Your task to perform on an android device: set default search engine in the chrome app Image 0: 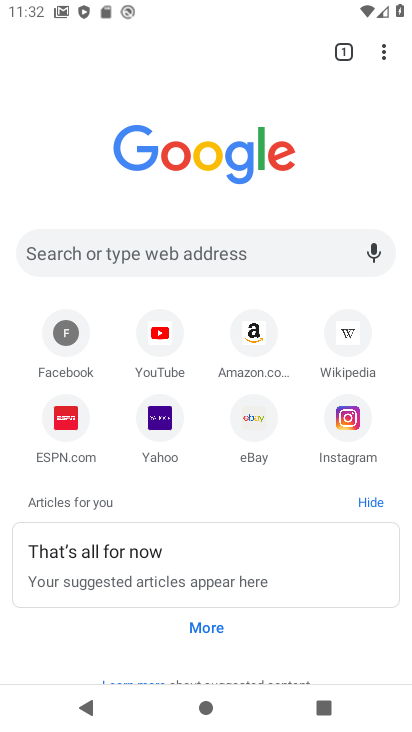
Step 0: click (390, 51)
Your task to perform on an android device: set default search engine in the chrome app Image 1: 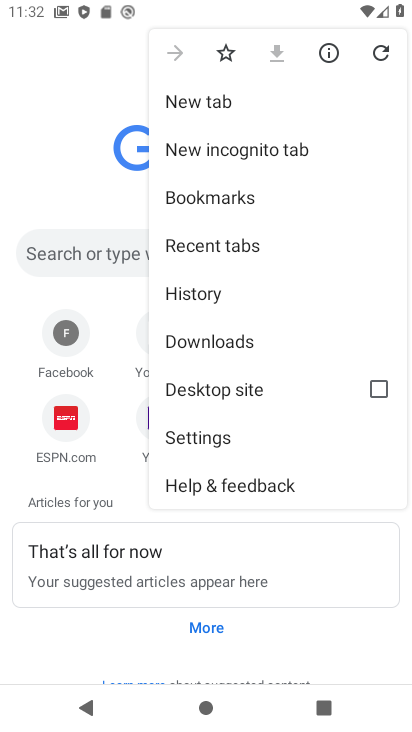
Step 1: click (232, 430)
Your task to perform on an android device: set default search engine in the chrome app Image 2: 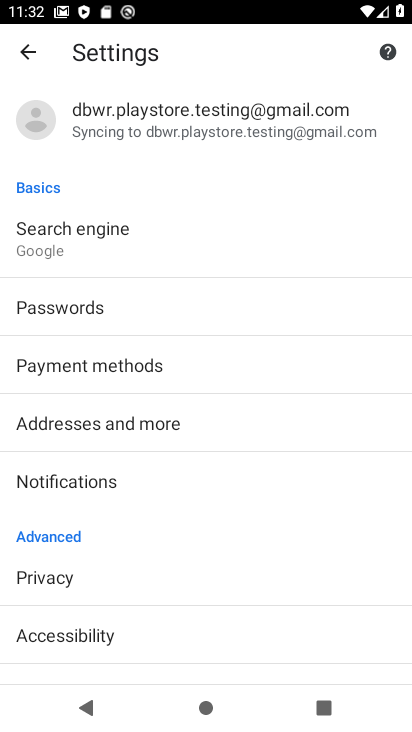
Step 2: drag from (213, 617) to (190, 330)
Your task to perform on an android device: set default search engine in the chrome app Image 3: 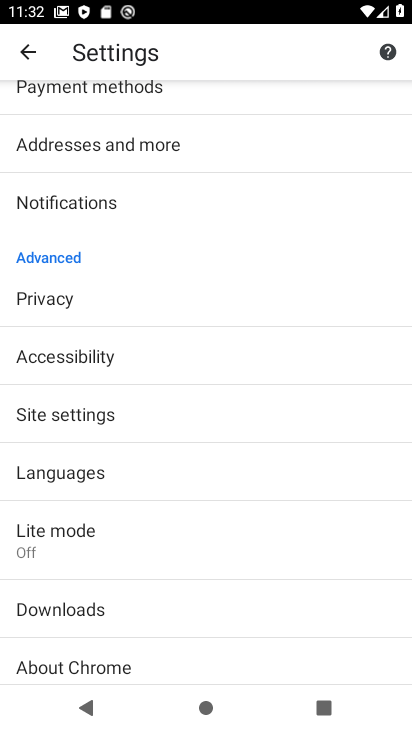
Step 3: drag from (122, 609) to (114, 440)
Your task to perform on an android device: set default search engine in the chrome app Image 4: 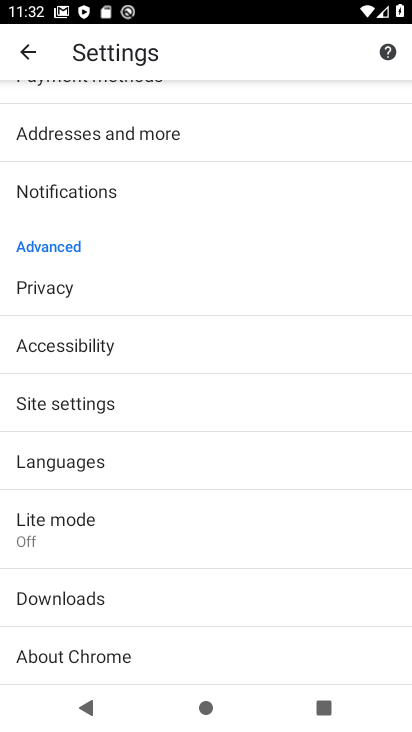
Step 4: drag from (98, 190) to (128, 556)
Your task to perform on an android device: set default search engine in the chrome app Image 5: 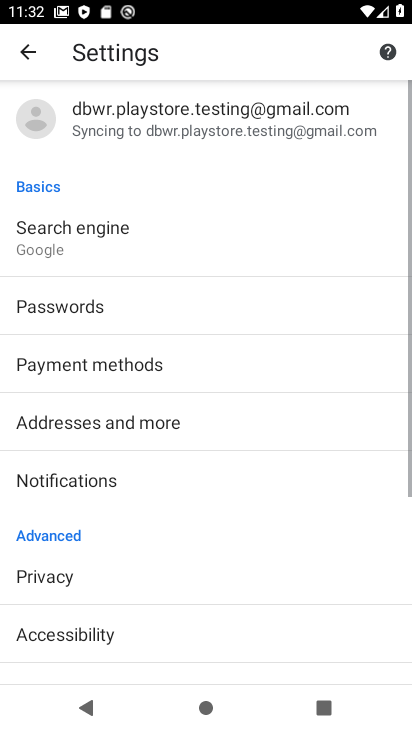
Step 5: drag from (129, 556) to (117, 403)
Your task to perform on an android device: set default search engine in the chrome app Image 6: 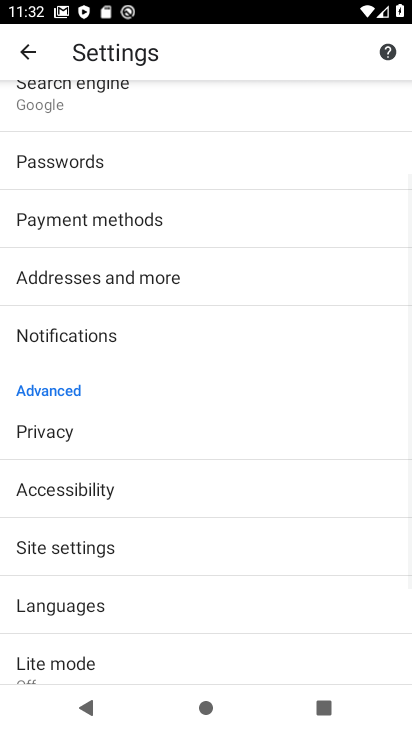
Step 6: click (83, 101)
Your task to perform on an android device: set default search engine in the chrome app Image 7: 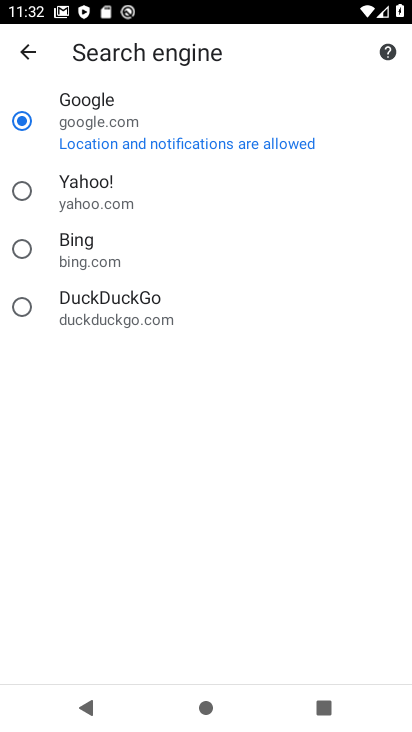
Step 7: click (72, 190)
Your task to perform on an android device: set default search engine in the chrome app Image 8: 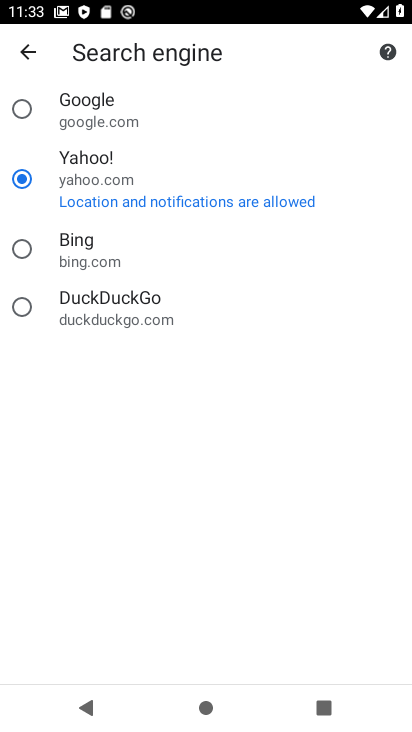
Step 8: task complete